Your task to perform on an android device: Open settings on Google Maps Image 0: 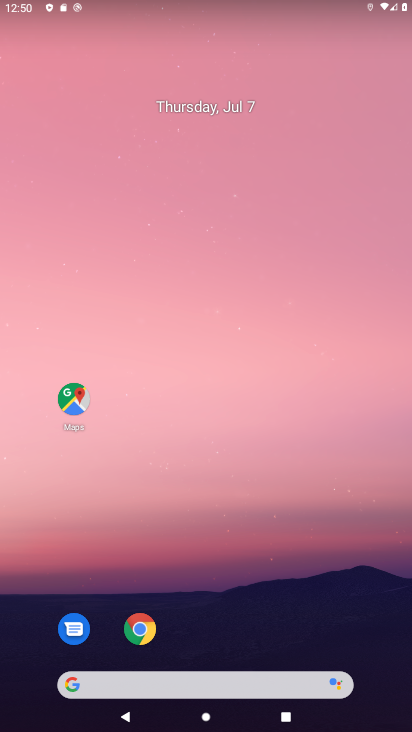
Step 0: click (72, 396)
Your task to perform on an android device: Open settings on Google Maps Image 1: 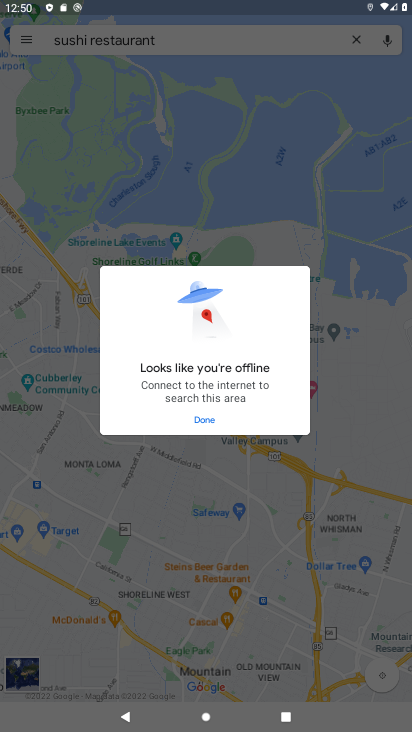
Step 1: click (202, 418)
Your task to perform on an android device: Open settings on Google Maps Image 2: 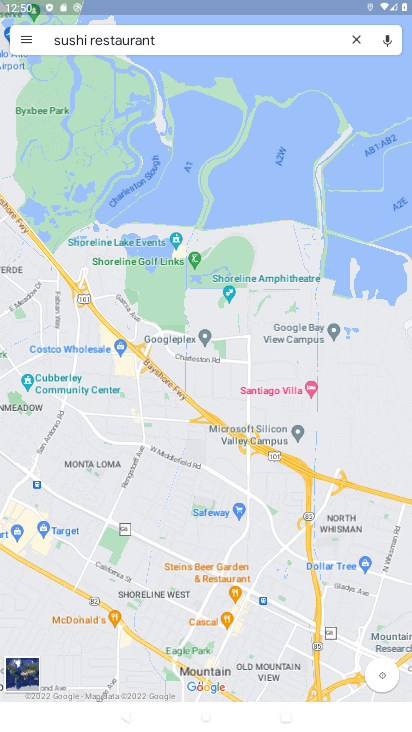
Step 2: click (28, 41)
Your task to perform on an android device: Open settings on Google Maps Image 3: 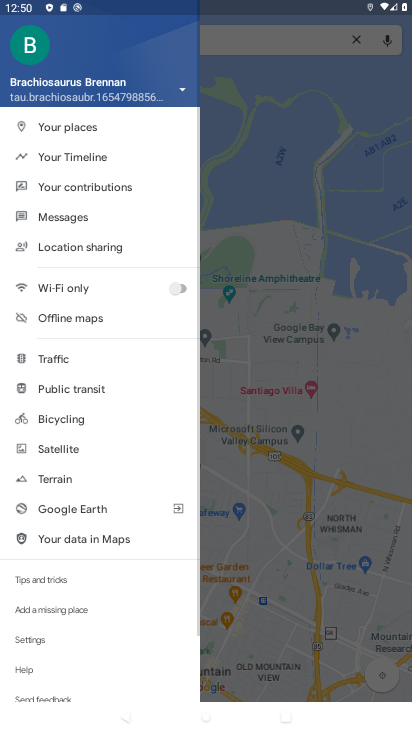
Step 3: click (26, 635)
Your task to perform on an android device: Open settings on Google Maps Image 4: 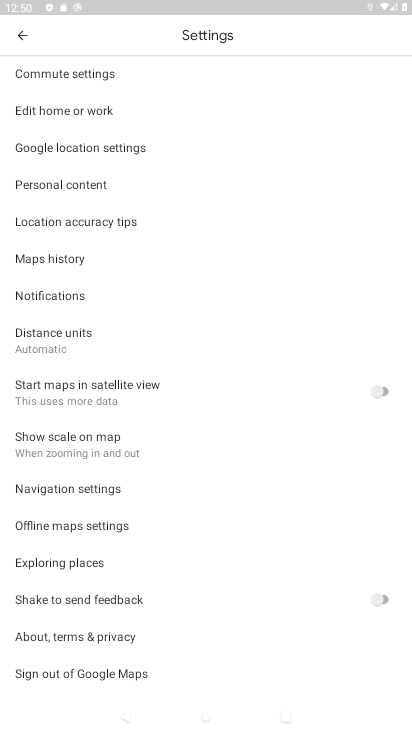
Step 4: task complete